Your task to perform on an android device: set default search engine in the chrome app Image 0: 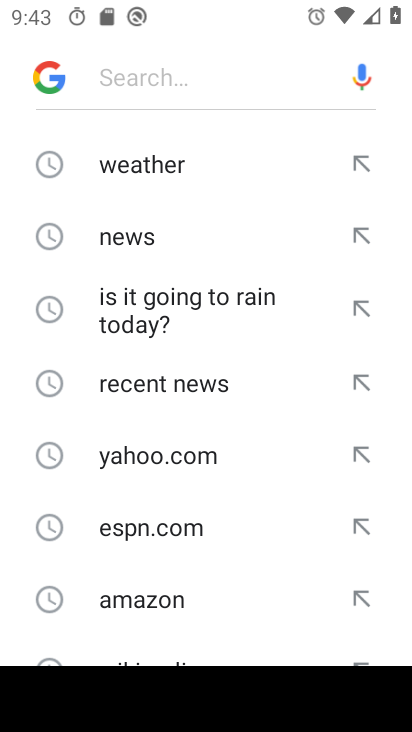
Step 0: press back button
Your task to perform on an android device: set default search engine in the chrome app Image 1: 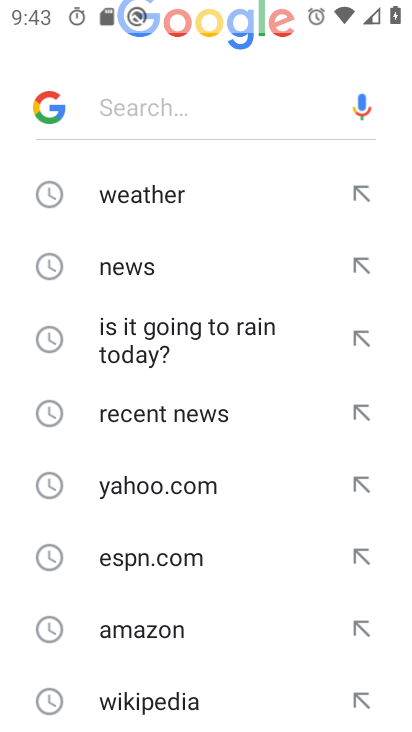
Step 1: press back button
Your task to perform on an android device: set default search engine in the chrome app Image 2: 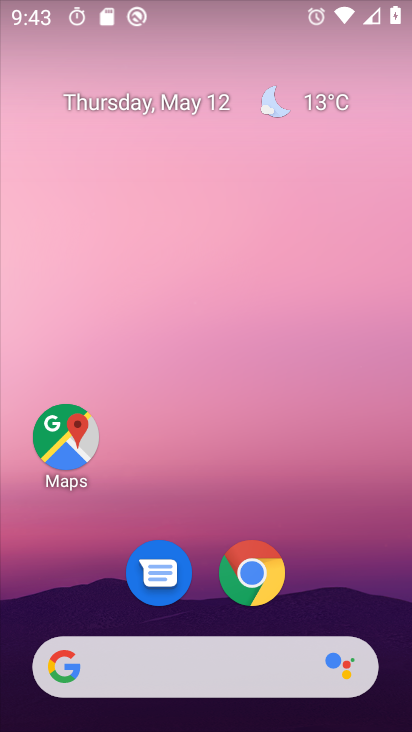
Step 2: click (253, 573)
Your task to perform on an android device: set default search engine in the chrome app Image 3: 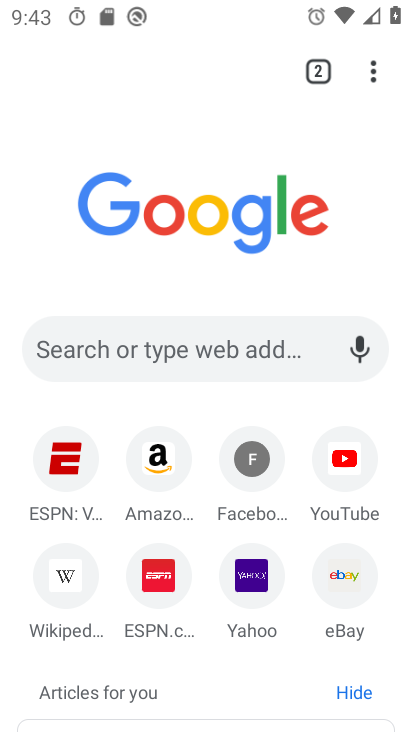
Step 3: click (374, 63)
Your task to perform on an android device: set default search engine in the chrome app Image 4: 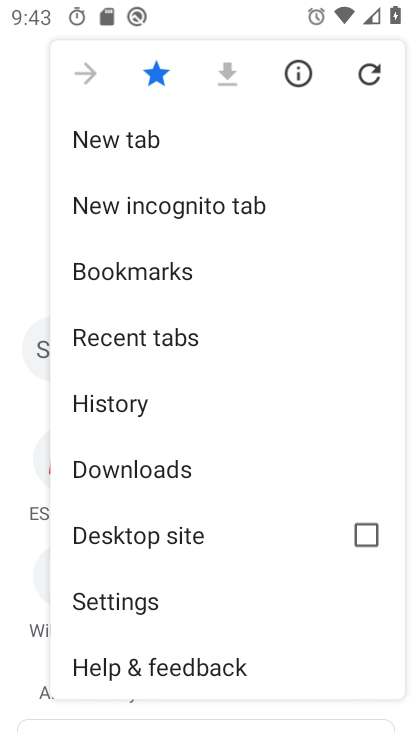
Step 4: click (107, 599)
Your task to perform on an android device: set default search engine in the chrome app Image 5: 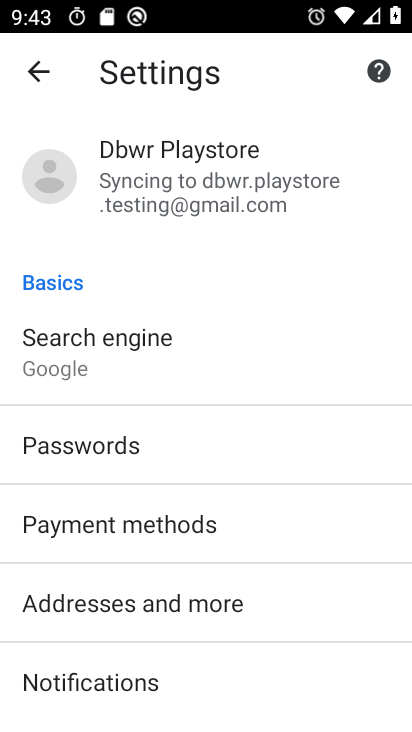
Step 5: click (126, 354)
Your task to perform on an android device: set default search engine in the chrome app Image 6: 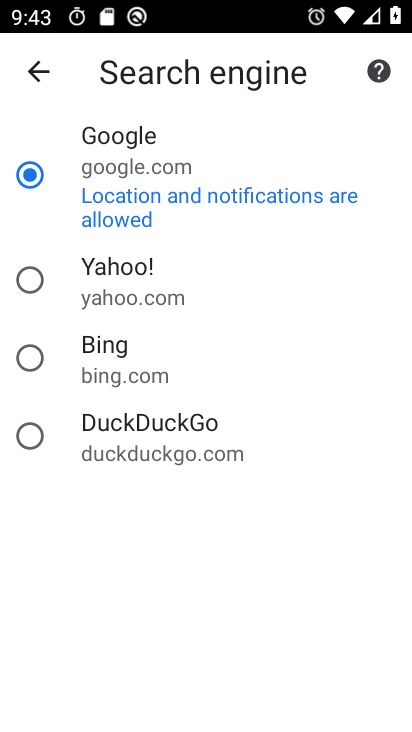
Step 6: task complete